Your task to perform on an android device: open app "Microsoft Outlook" (install if not already installed) and go to login screen Image 0: 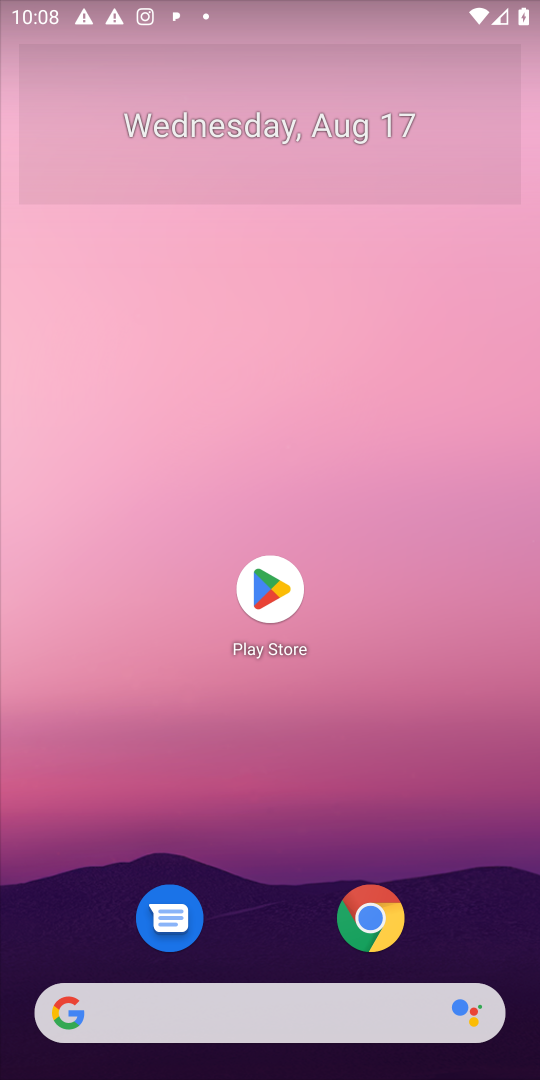
Step 0: click (265, 577)
Your task to perform on an android device: open app "Microsoft Outlook" (install if not already installed) and go to login screen Image 1: 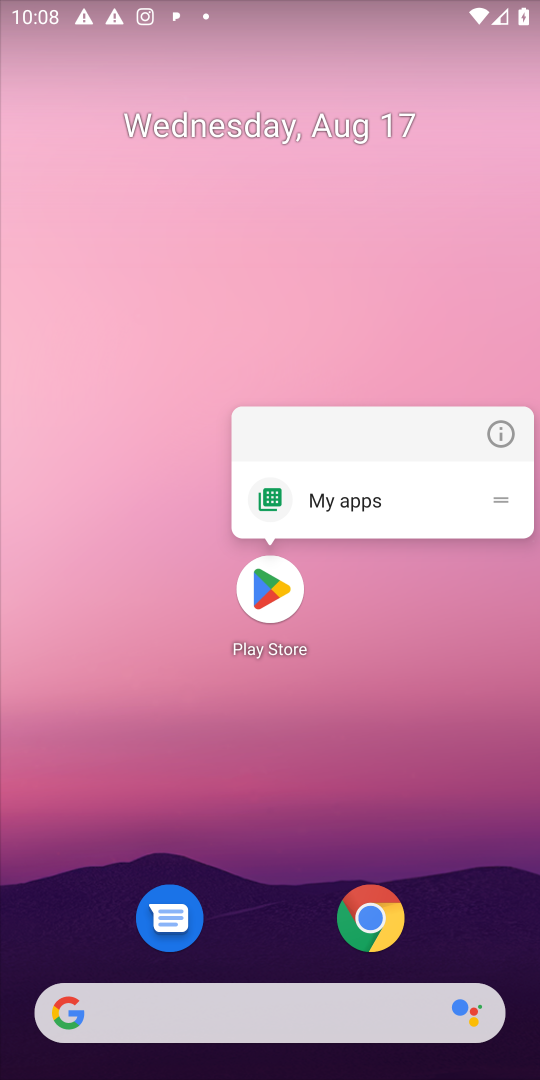
Step 1: click (265, 588)
Your task to perform on an android device: open app "Microsoft Outlook" (install if not already installed) and go to login screen Image 2: 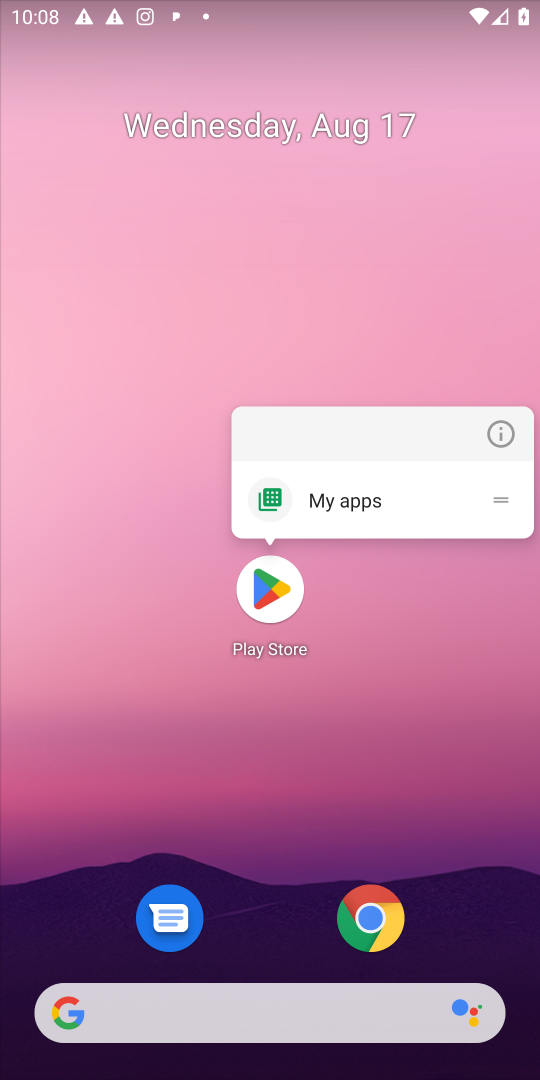
Step 2: click (265, 585)
Your task to perform on an android device: open app "Microsoft Outlook" (install if not already installed) and go to login screen Image 3: 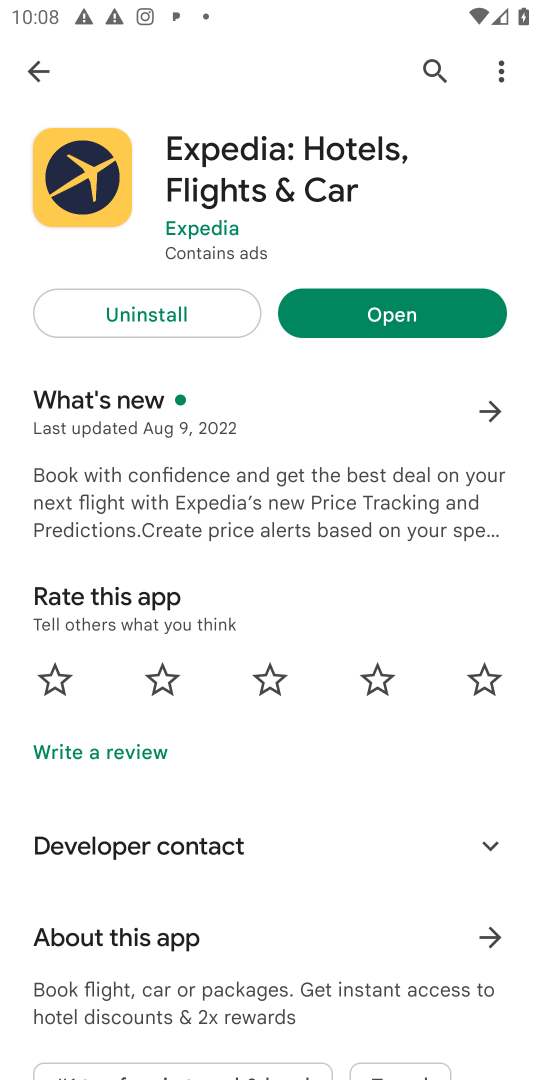
Step 3: click (429, 67)
Your task to perform on an android device: open app "Microsoft Outlook" (install if not already installed) and go to login screen Image 4: 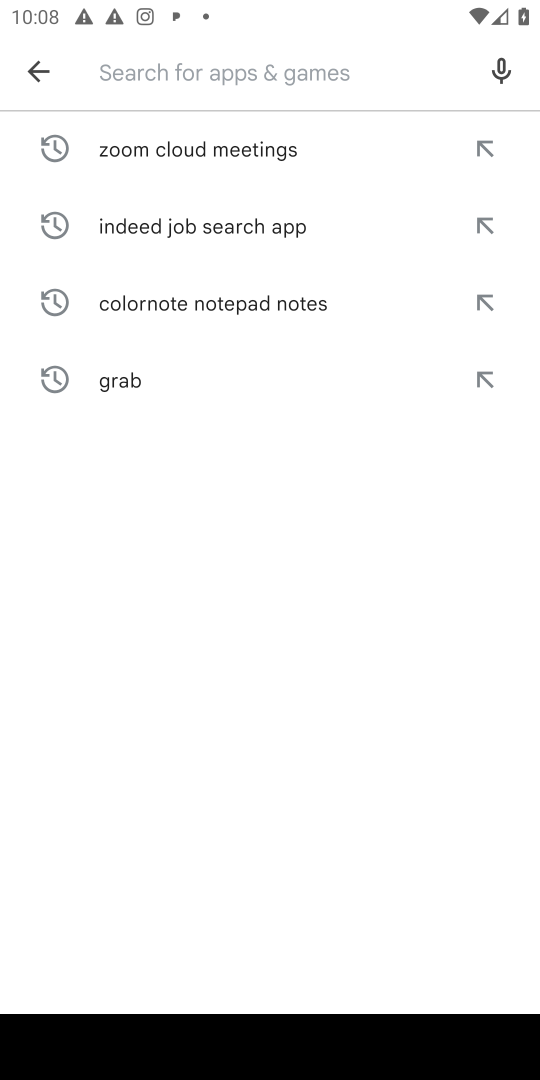
Step 4: type "Microsoft Outlook"
Your task to perform on an android device: open app "Microsoft Outlook" (install if not already installed) and go to login screen Image 5: 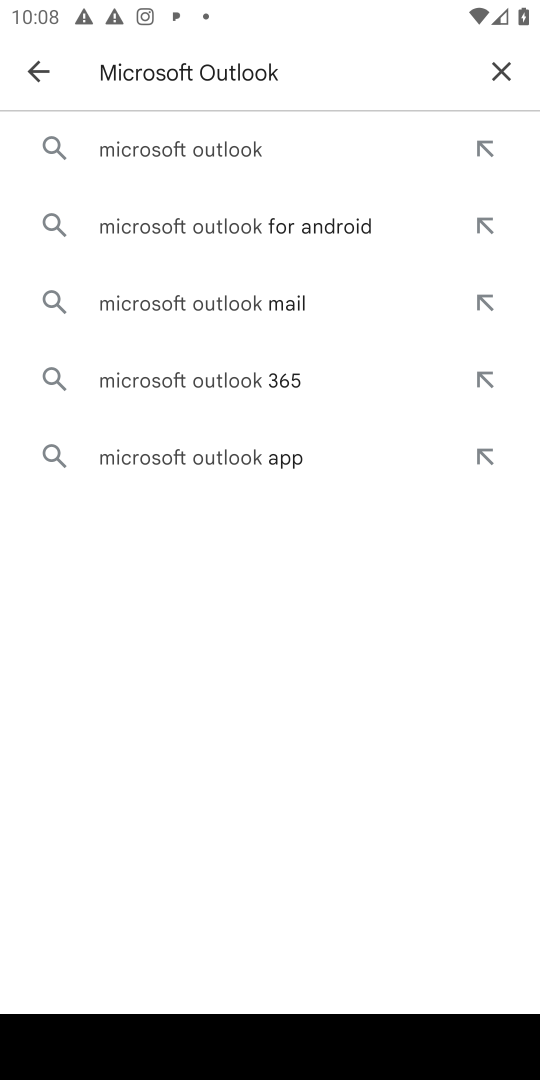
Step 5: click (245, 153)
Your task to perform on an android device: open app "Microsoft Outlook" (install if not already installed) and go to login screen Image 6: 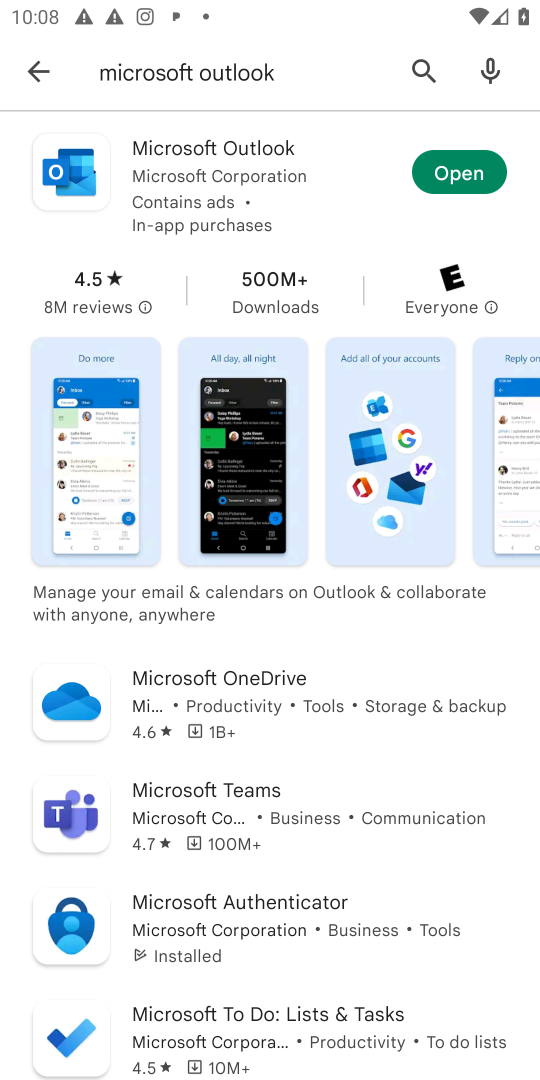
Step 6: click (466, 166)
Your task to perform on an android device: open app "Microsoft Outlook" (install if not already installed) and go to login screen Image 7: 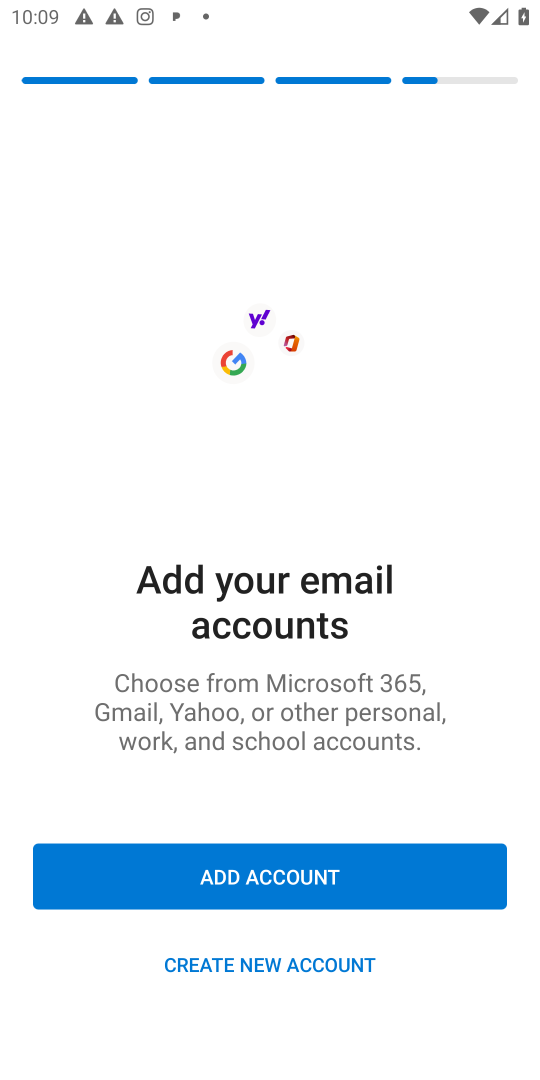
Step 7: task complete